Your task to perform on an android device: Go to location settings Image 0: 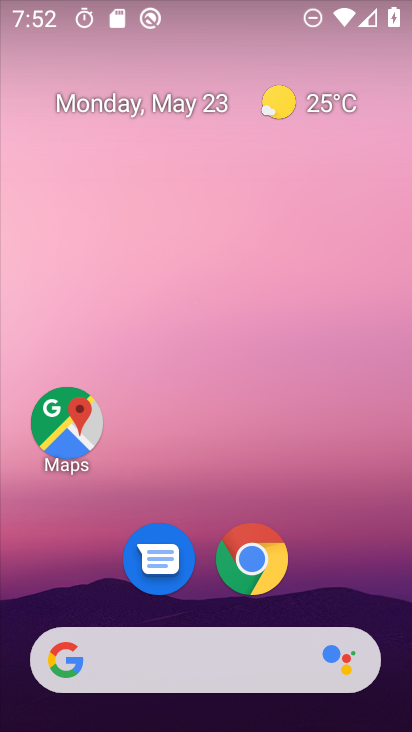
Step 0: drag from (391, 664) to (267, 57)
Your task to perform on an android device: Go to location settings Image 1: 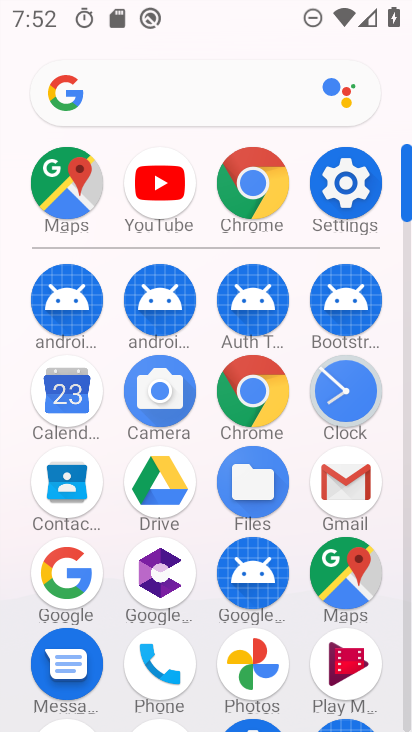
Step 1: click (349, 170)
Your task to perform on an android device: Go to location settings Image 2: 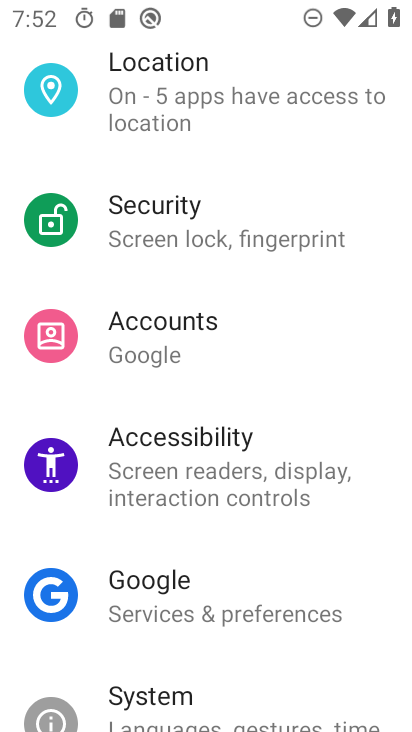
Step 2: click (176, 133)
Your task to perform on an android device: Go to location settings Image 3: 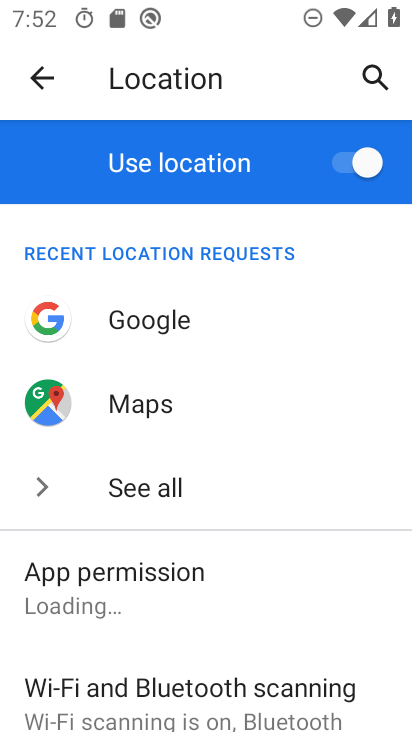
Step 3: task complete